Your task to perform on an android device: Open location settings Image 0: 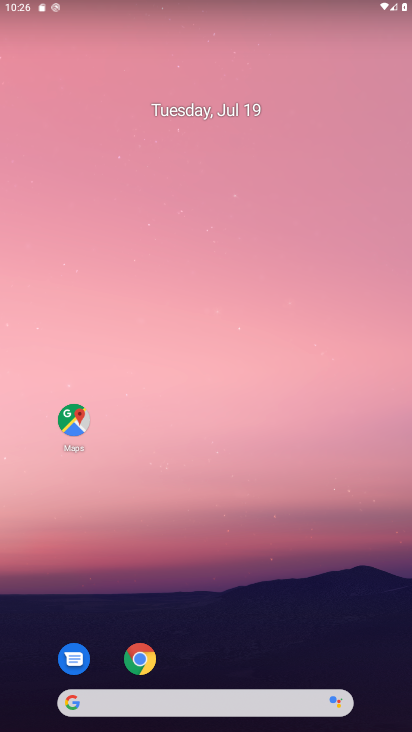
Step 0: drag from (215, 626) to (236, 20)
Your task to perform on an android device: Open location settings Image 1: 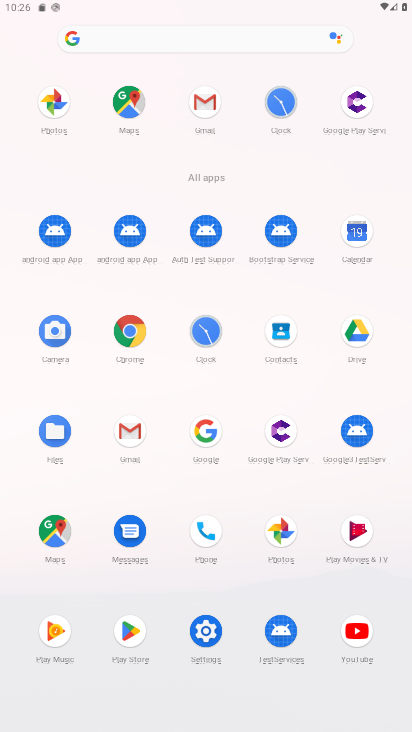
Step 1: click (210, 629)
Your task to perform on an android device: Open location settings Image 2: 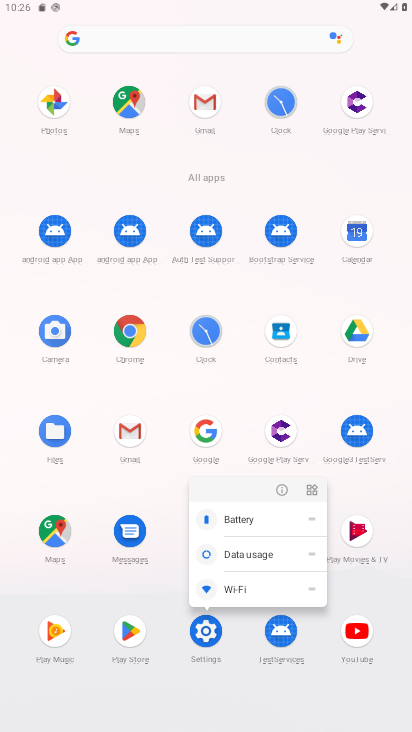
Step 2: click (283, 489)
Your task to perform on an android device: Open location settings Image 3: 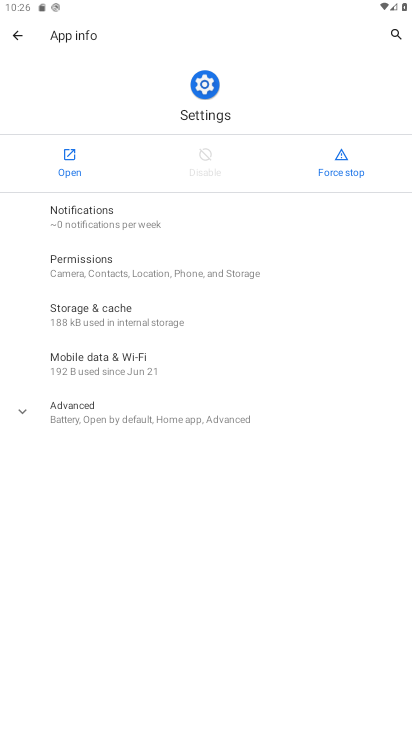
Step 3: click (72, 161)
Your task to perform on an android device: Open location settings Image 4: 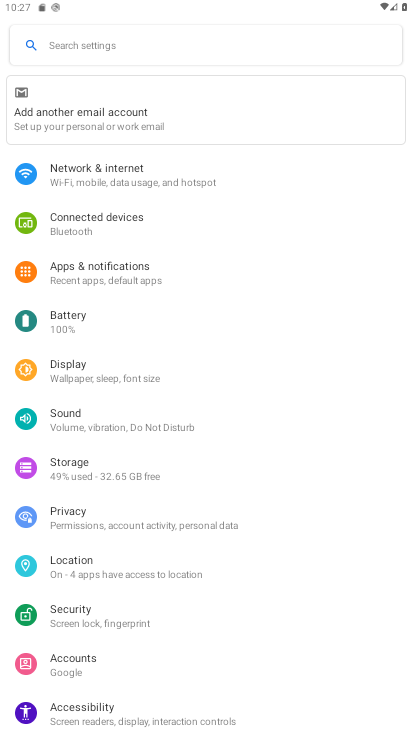
Step 4: click (100, 558)
Your task to perform on an android device: Open location settings Image 5: 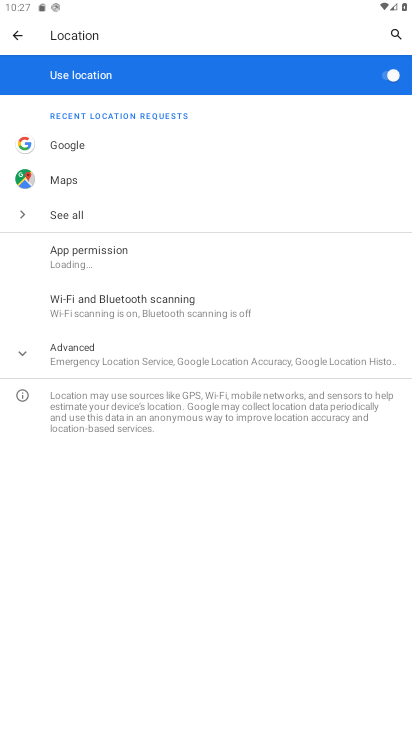
Step 5: click (80, 360)
Your task to perform on an android device: Open location settings Image 6: 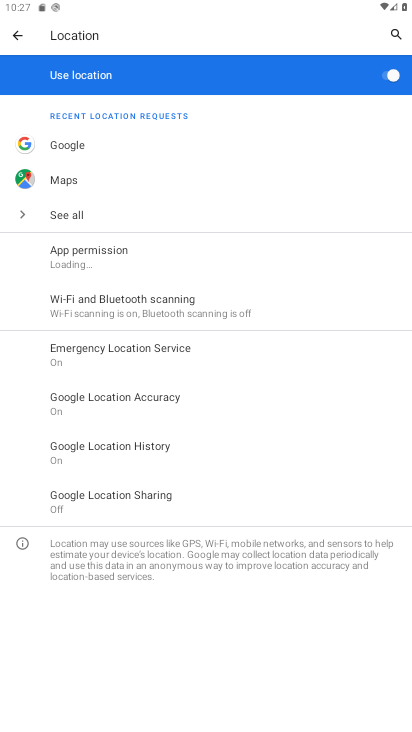
Step 6: task complete